Your task to perform on an android device: toggle location history Image 0: 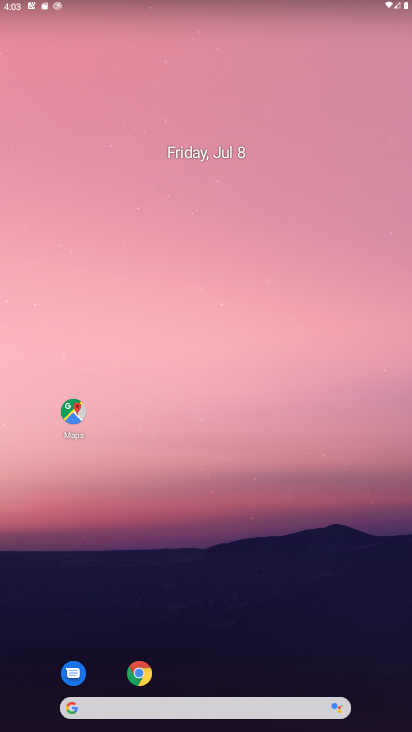
Step 0: drag from (260, 671) to (290, 6)
Your task to perform on an android device: toggle location history Image 1: 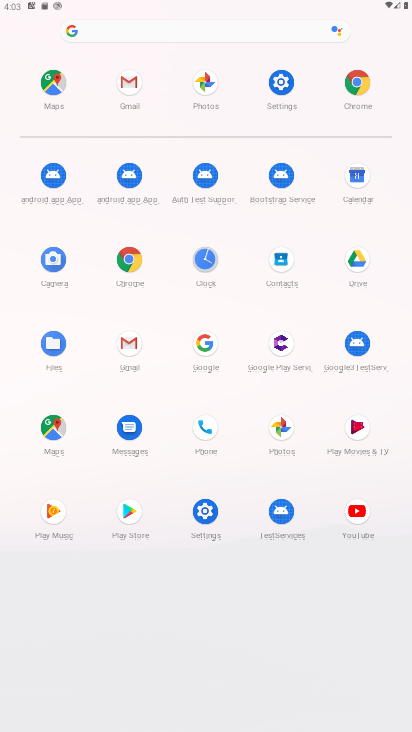
Step 1: click (54, 85)
Your task to perform on an android device: toggle location history Image 2: 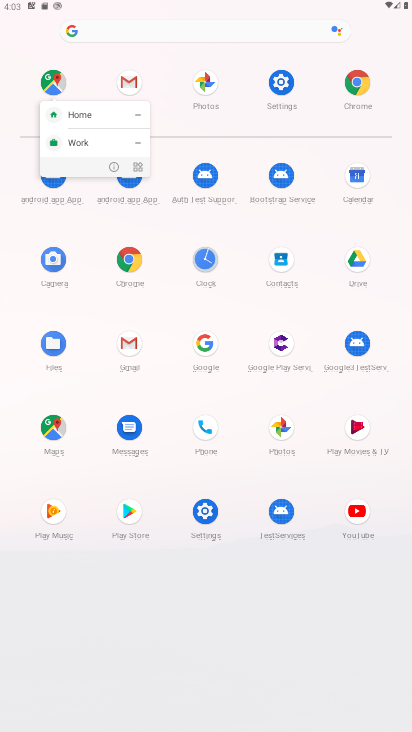
Step 2: click (54, 85)
Your task to perform on an android device: toggle location history Image 3: 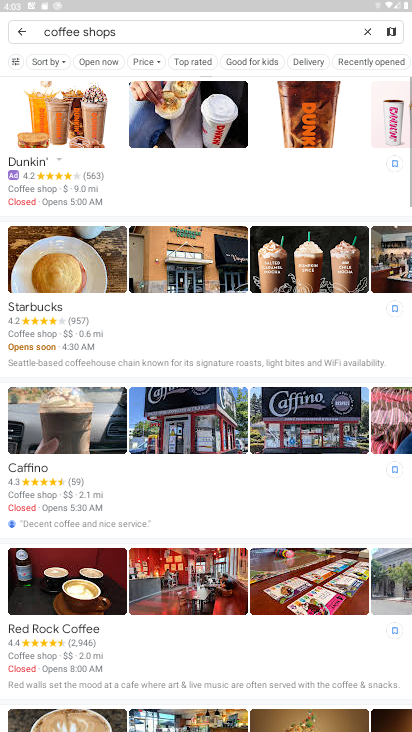
Step 3: click (372, 26)
Your task to perform on an android device: toggle location history Image 4: 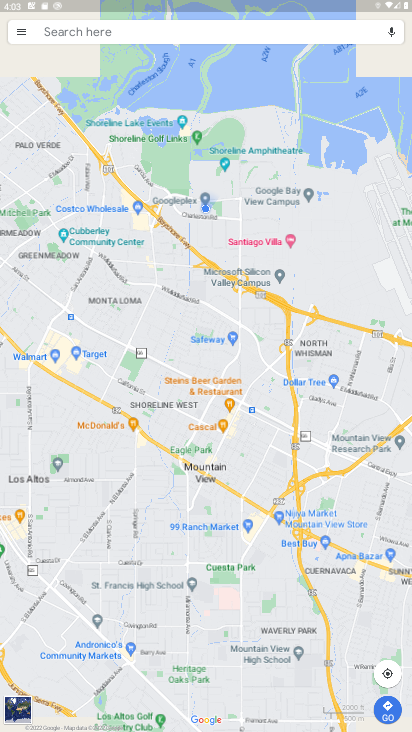
Step 4: click (20, 30)
Your task to perform on an android device: toggle location history Image 5: 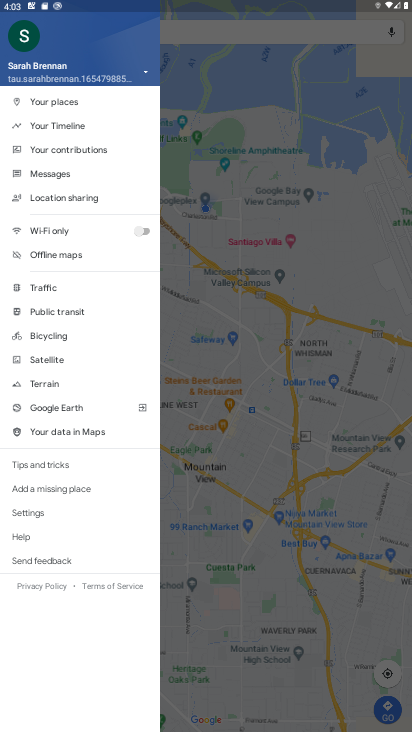
Step 5: click (43, 133)
Your task to perform on an android device: toggle location history Image 6: 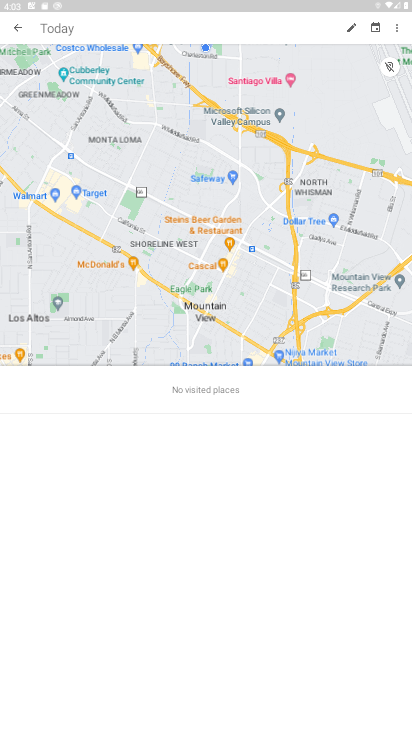
Step 6: click (398, 26)
Your task to perform on an android device: toggle location history Image 7: 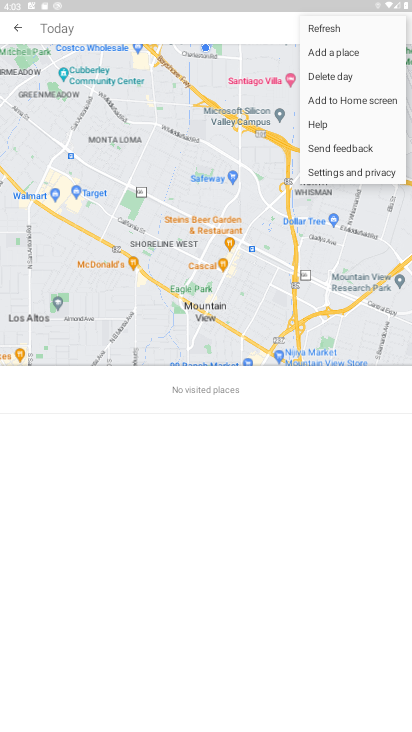
Step 7: click (335, 171)
Your task to perform on an android device: toggle location history Image 8: 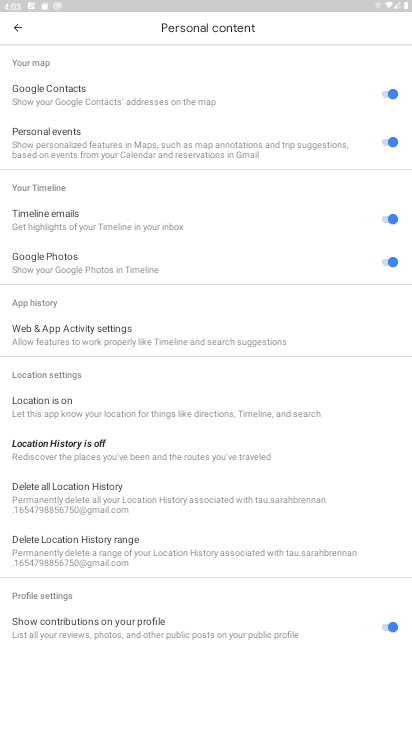
Step 8: click (27, 449)
Your task to perform on an android device: toggle location history Image 9: 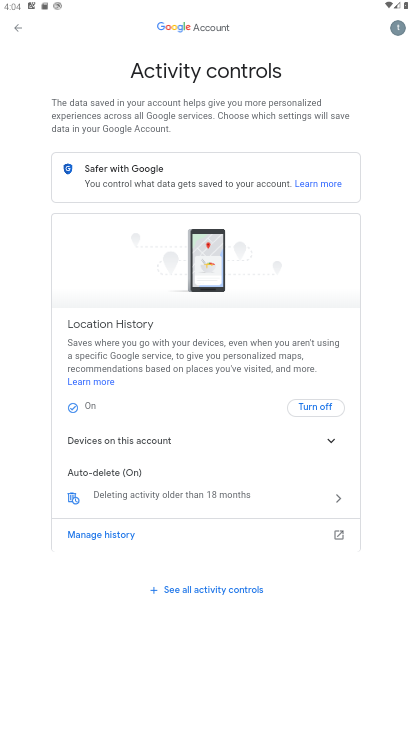
Step 9: click (323, 410)
Your task to perform on an android device: toggle location history Image 10: 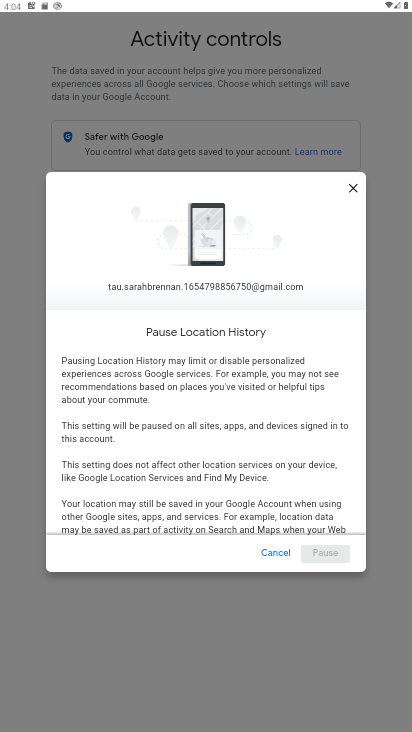
Step 10: drag from (249, 490) to (317, 258)
Your task to perform on an android device: toggle location history Image 11: 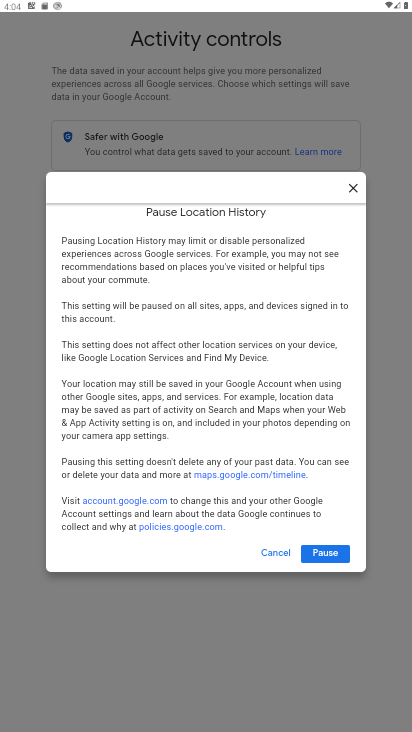
Step 11: click (308, 554)
Your task to perform on an android device: toggle location history Image 12: 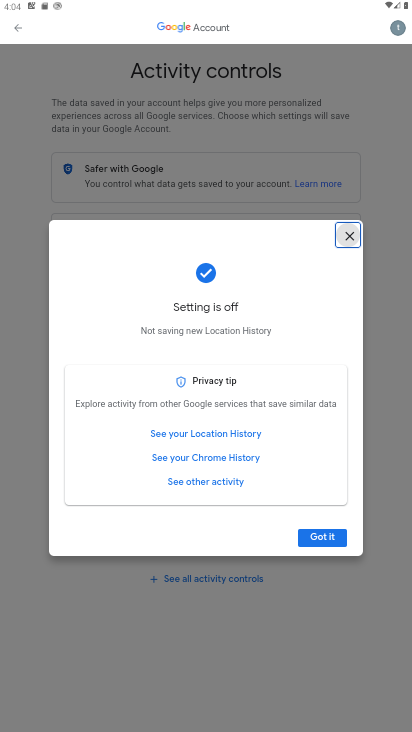
Step 12: click (331, 536)
Your task to perform on an android device: toggle location history Image 13: 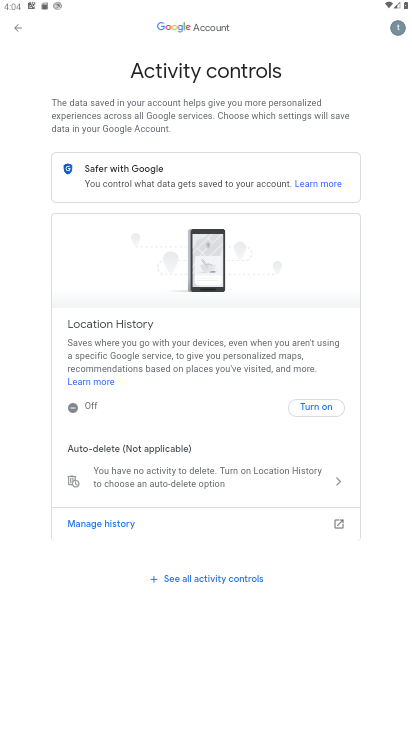
Step 13: task complete